Your task to perform on an android device: all mails in gmail Image 0: 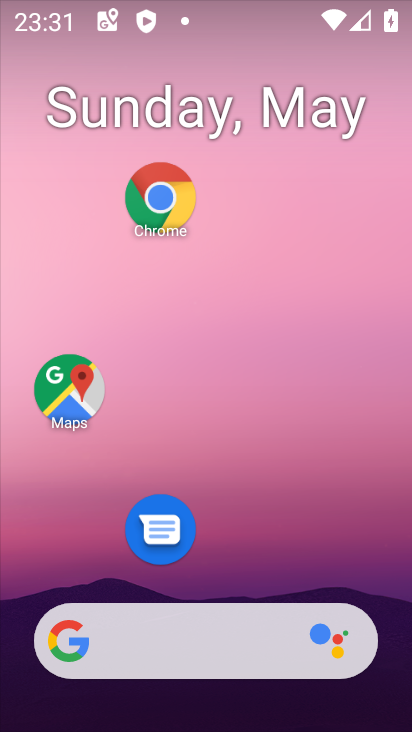
Step 0: drag from (366, 551) to (267, 127)
Your task to perform on an android device: all mails in gmail Image 1: 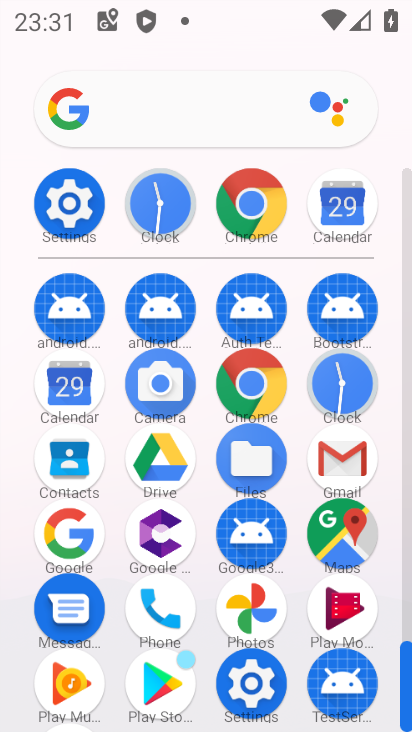
Step 1: click (347, 449)
Your task to perform on an android device: all mails in gmail Image 2: 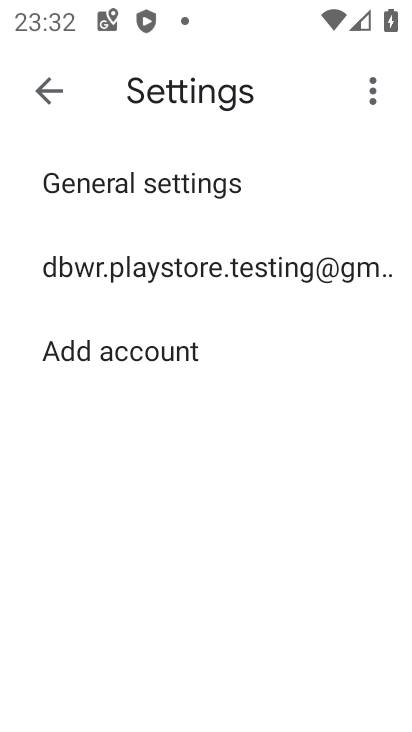
Step 2: task complete